Your task to perform on an android device: set the timer Image 0: 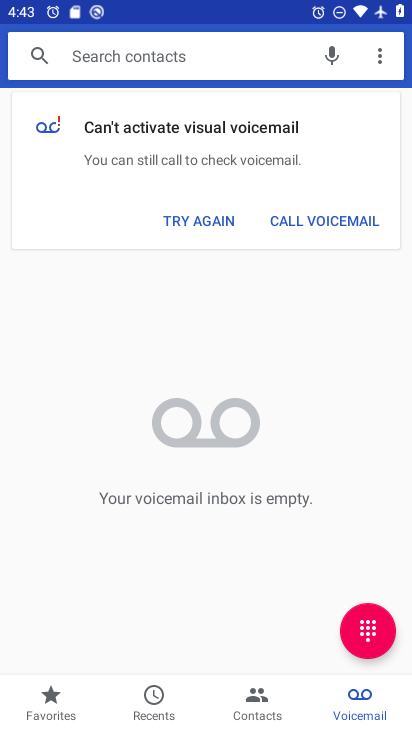
Step 0: press back button
Your task to perform on an android device: set the timer Image 1: 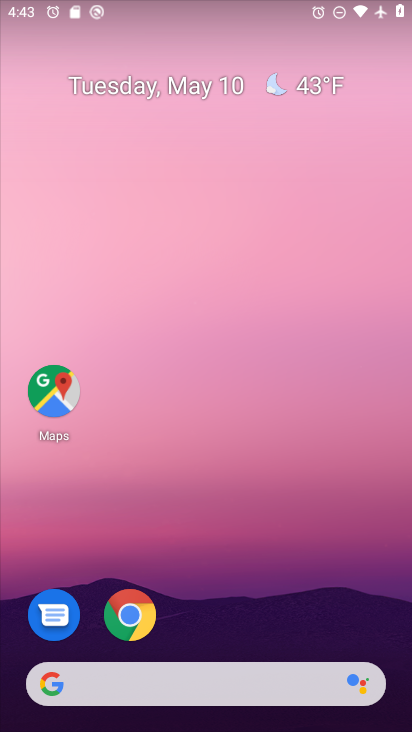
Step 1: drag from (311, 521) to (310, 93)
Your task to perform on an android device: set the timer Image 2: 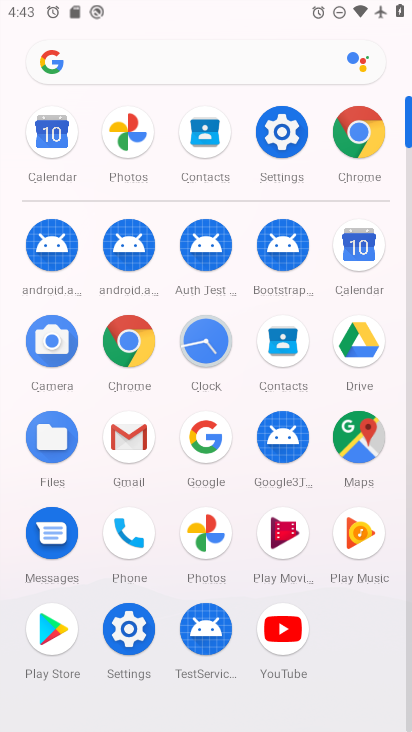
Step 2: click (201, 337)
Your task to perform on an android device: set the timer Image 3: 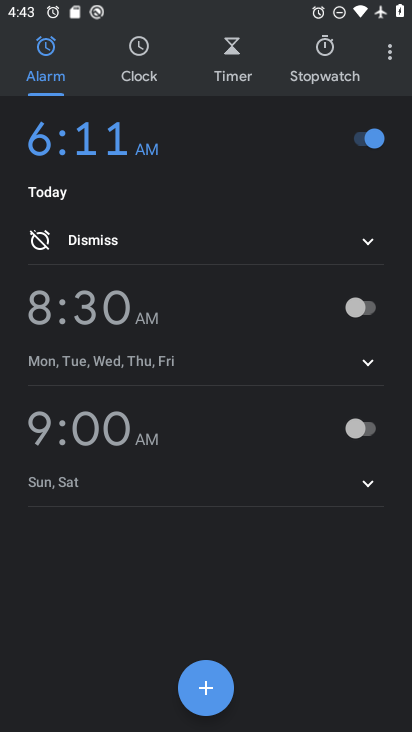
Step 3: click (240, 58)
Your task to perform on an android device: set the timer Image 4: 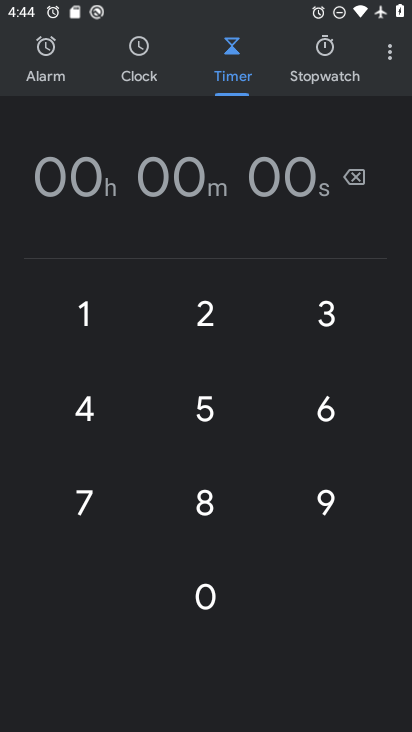
Step 4: click (201, 312)
Your task to perform on an android device: set the timer Image 5: 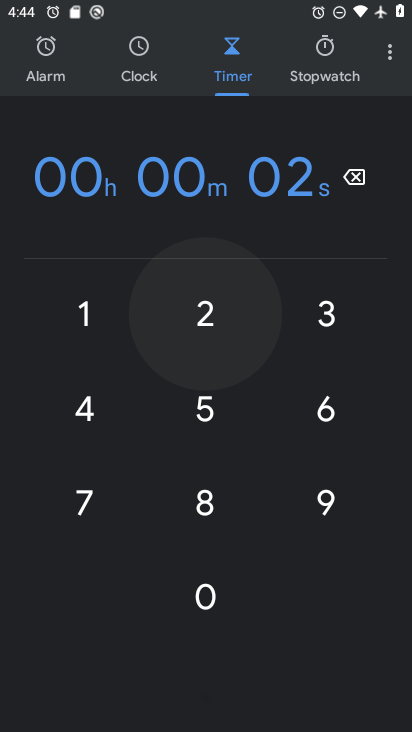
Step 5: click (93, 404)
Your task to perform on an android device: set the timer Image 6: 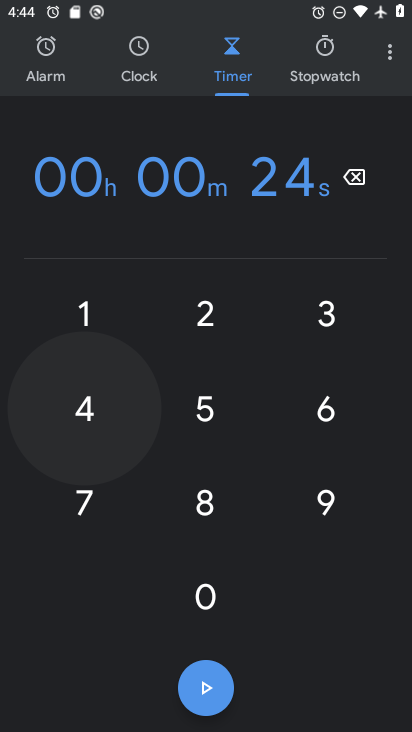
Step 6: click (202, 511)
Your task to perform on an android device: set the timer Image 7: 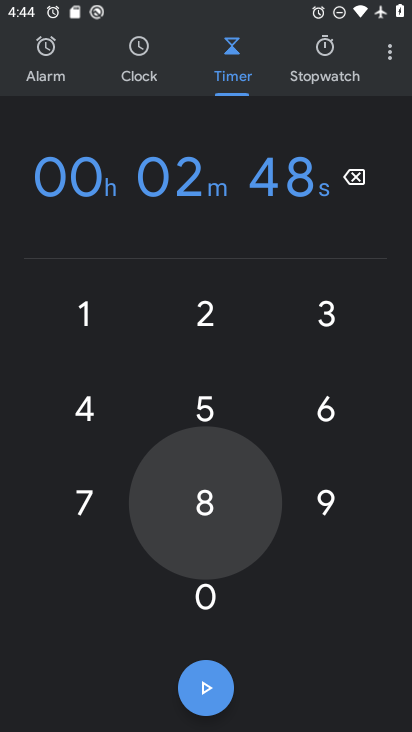
Step 7: click (343, 412)
Your task to perform on an android device: set the timer Image 8: 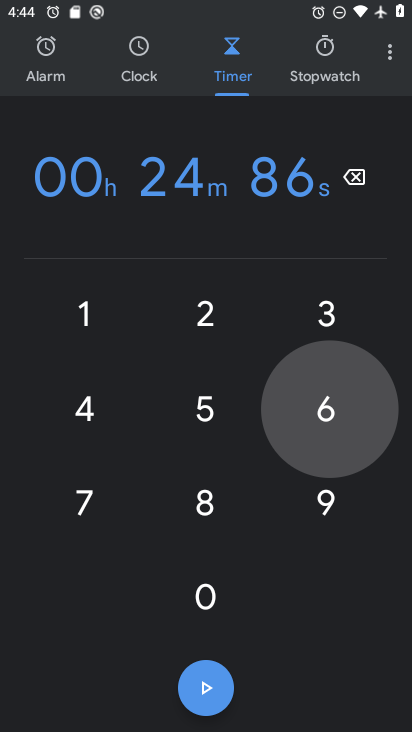
Step 8: click (322, 513)
Your task to perform on an android device: set the timer Image 9: 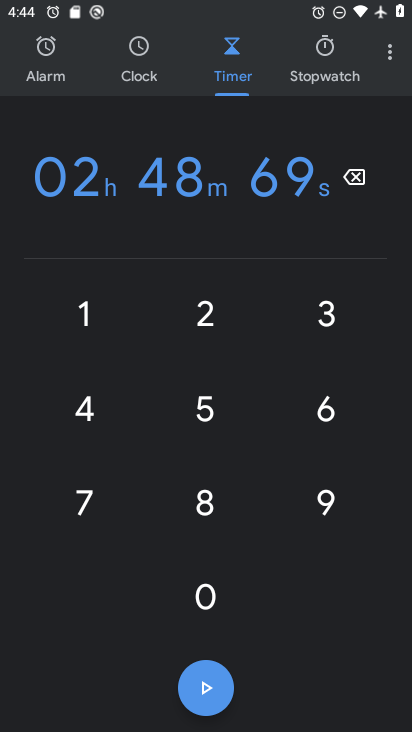
Step 9: click (218, 680)
Your task to perform on an android device: set the timer Image 10: 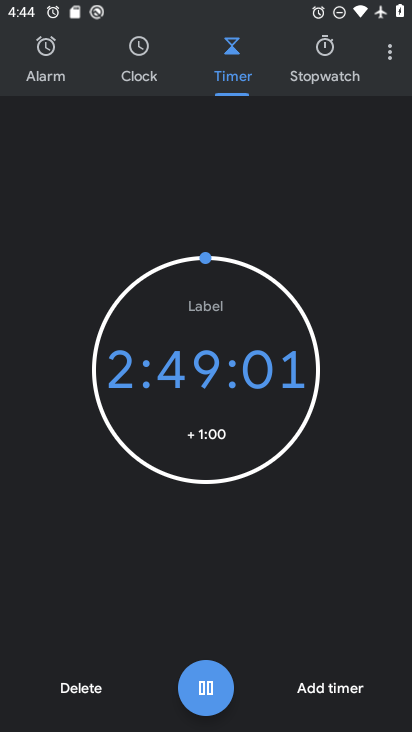
Step 10: task complete